Your task to perform on an android device: Clear the cart on newegg.com. Add "usb-c to usb-a" to the cart on newegg.com, then select checkout. Image 0: 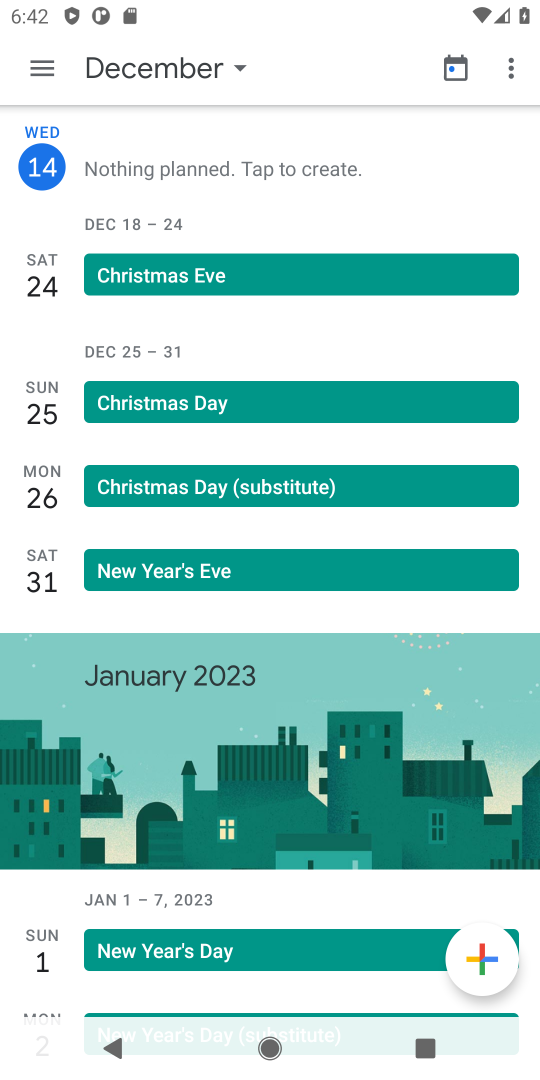
Step 0: press home button
Your task to perform on an android device: Clear the cart on newegg.com. Add "usb-c to usb-a" to the cart on newegg.com, then select checkout. Image 1: 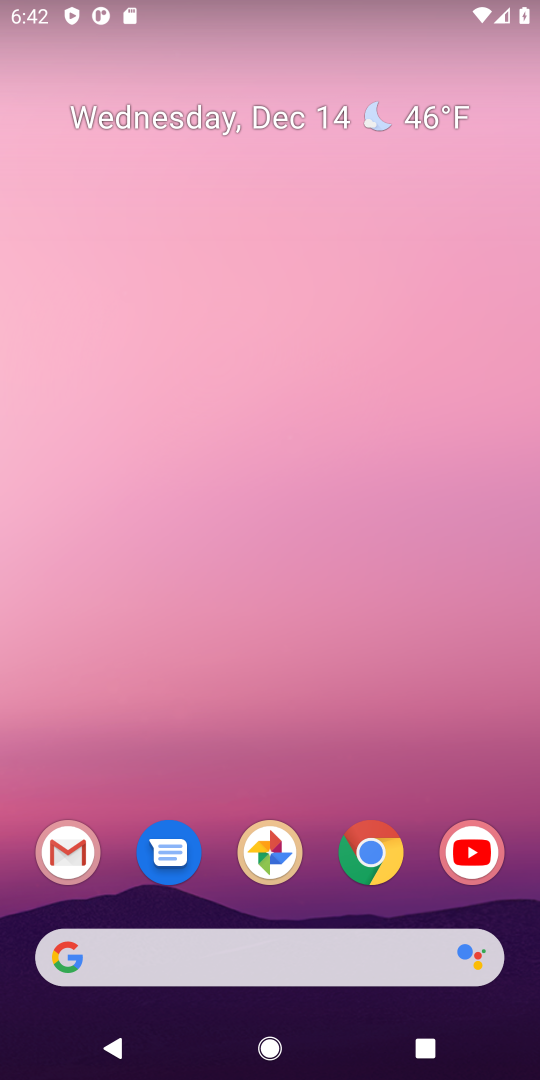
Step 1: click (371, 852)
Your task to perform on an android device: Clear the cart on newegg.com. Add "usb-c to usb-a" to the cart on newegg.com, then select checkout. Image 2: 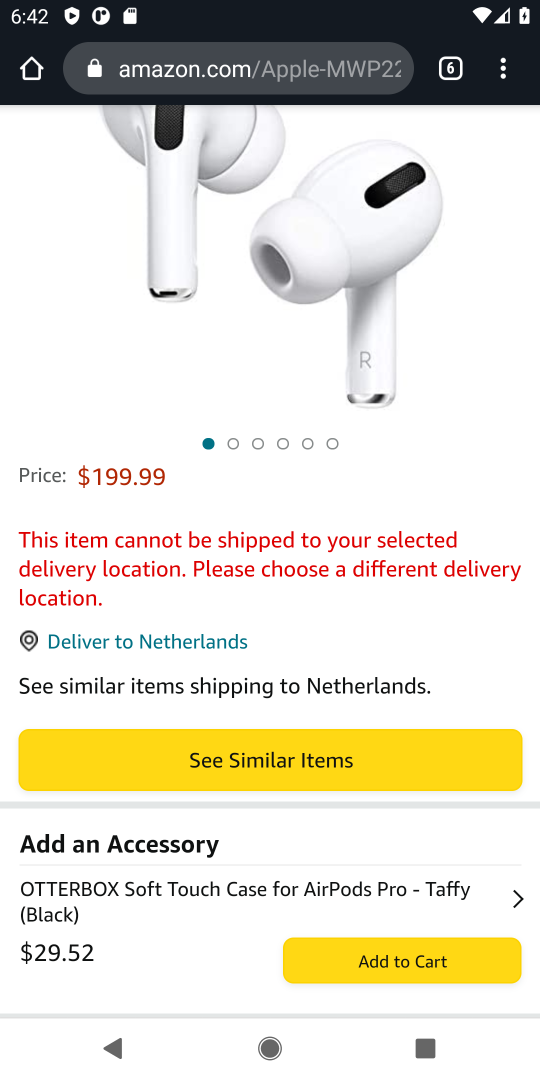
Step 2: click (449, 67)
Your task to perform on an android device: Clear the cart on newegg.com. Add "usb-c to usb-a" to the cart on newegg.com, then select checkout. Image 3: 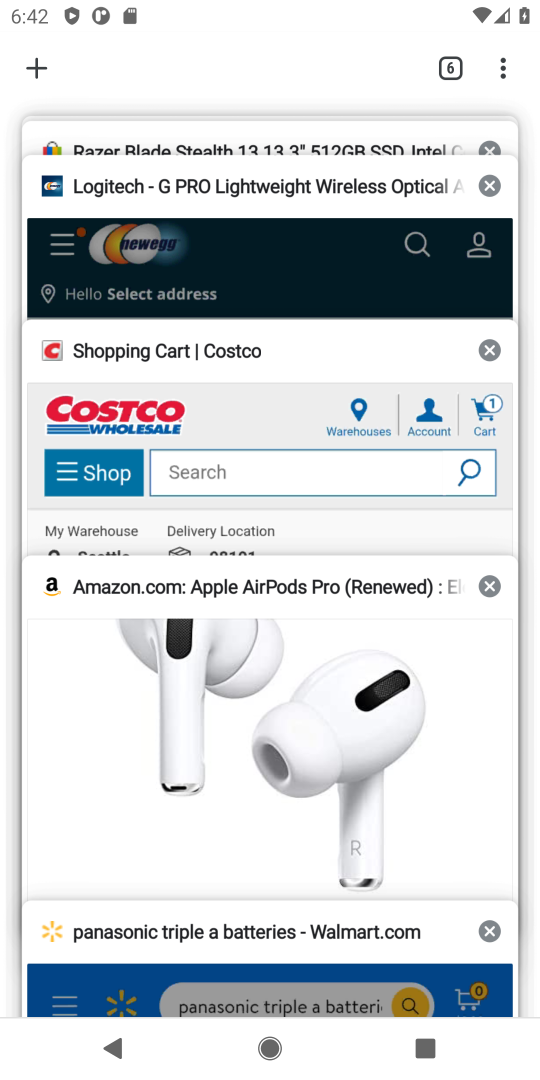
Step 3: click (275, 205)
Your task to perform on an android device: Clear the cart on newegg.com. Add "usb-c to usb-a" to the cart on newegg.com, then select checkout. Image 4: 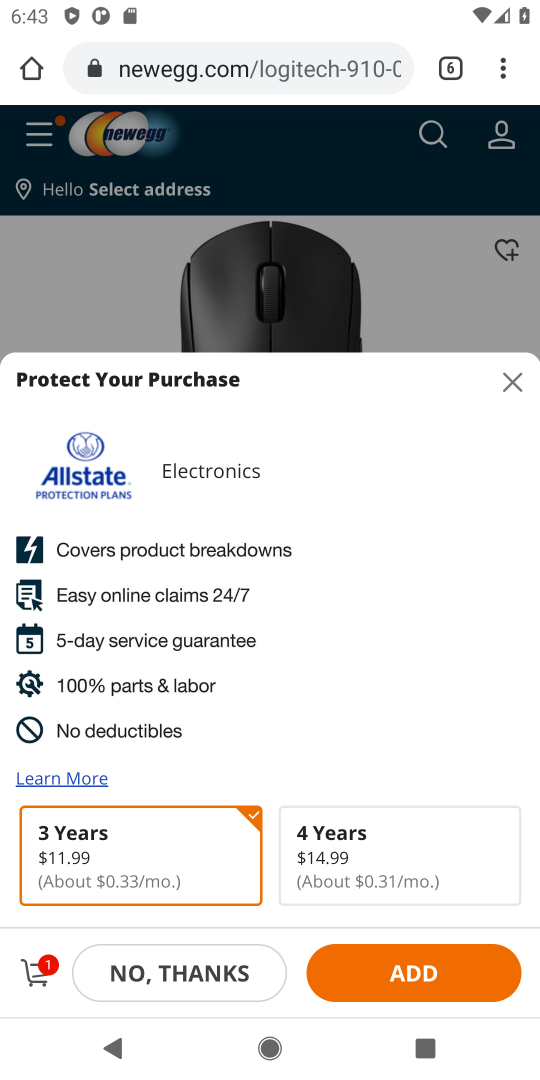
Step 4: click (515, 386)
Your task to perform on an android device: Clear the cart on newegg.com. Add "usb-c to usb-a" to the cart on newegg.com, then select checkout. Image 5: 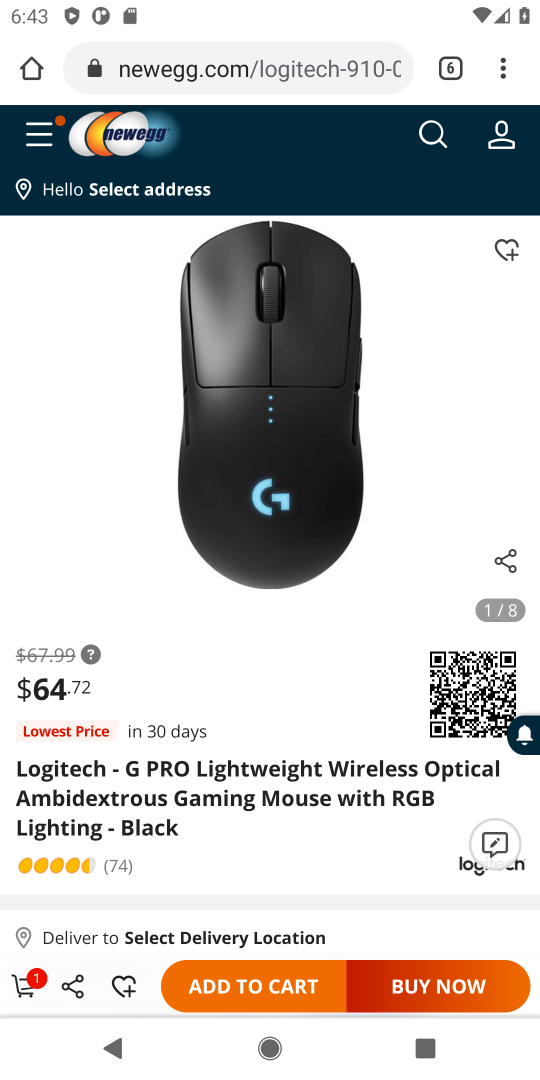
Step 5: click (432, 138)
Your task to perform on an android device: Clear the cart on newegg.com. Add "usb-c to usb-a" to the cart on newegg.com, then select checkout. Image 6: 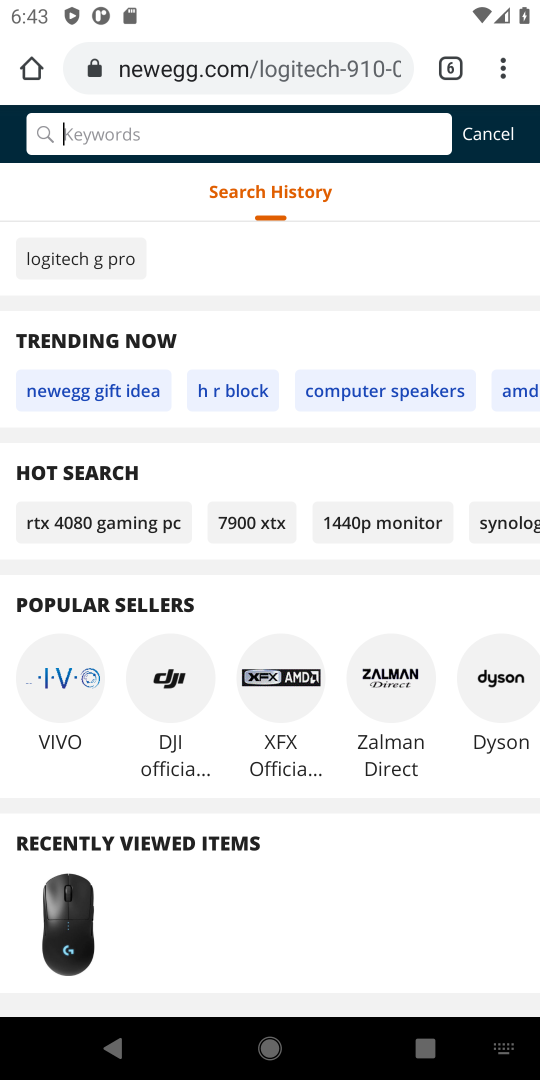
Step 6: type "usb-c to usb-a"
Your task to perform on an android device: Clear the cart on newegg.com. Add "usb-c to usb-a" to the cart on newegg.com, then select checkout. Image 7: 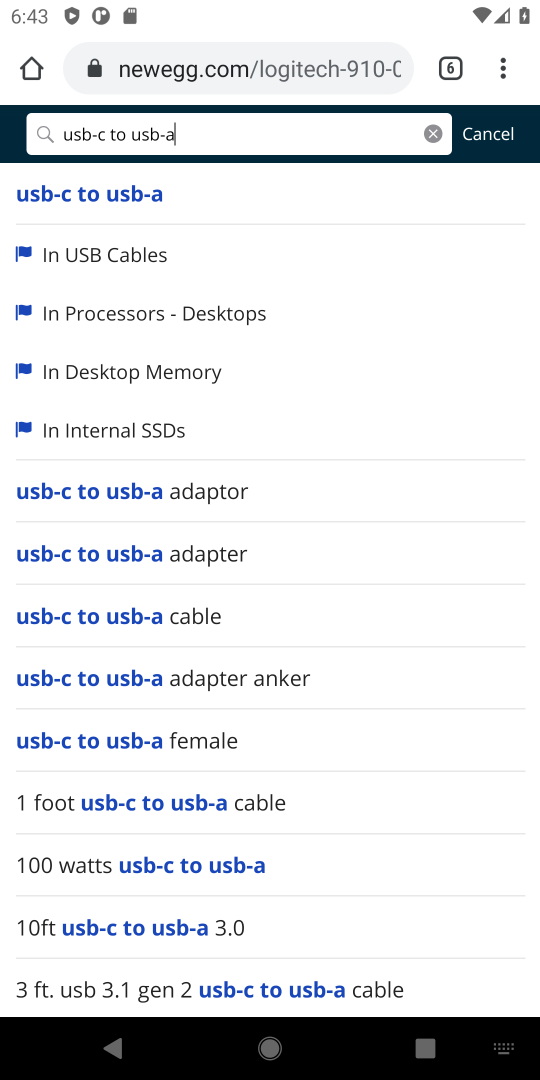
Step 7: click (69, 198)
Your task to perform on an android device: Clear the cart on newegg.com. Add "usb-c to usb-a" to the cart on newegg.com, then select checkout. Image 8: 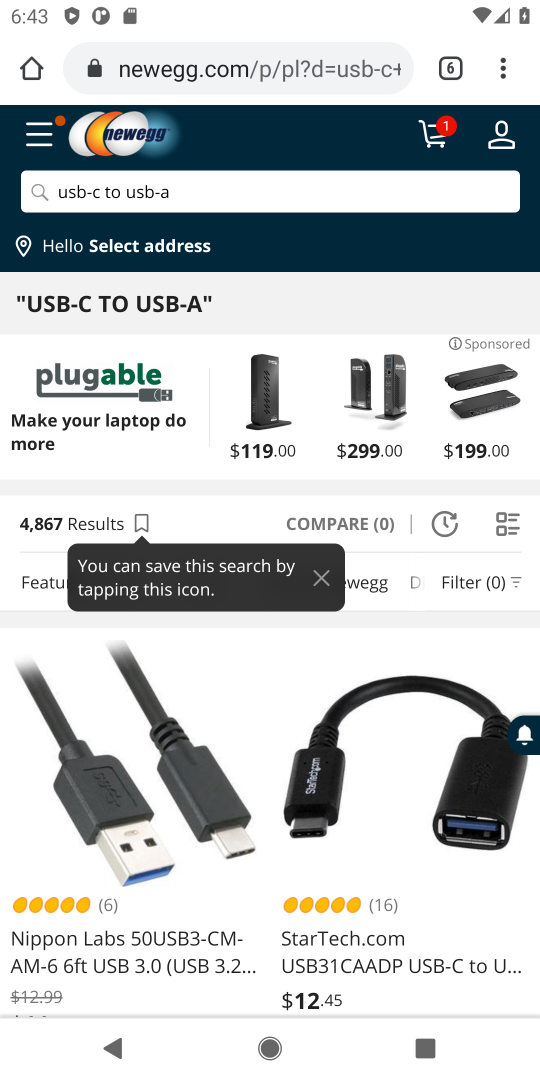
Step 8: click (183, 949)
Your task to perform on an android device: Clear the cart on newegg.com. Add "usb-c to usb-a" to the cart on newegg.com, then select checkout. Image 9: 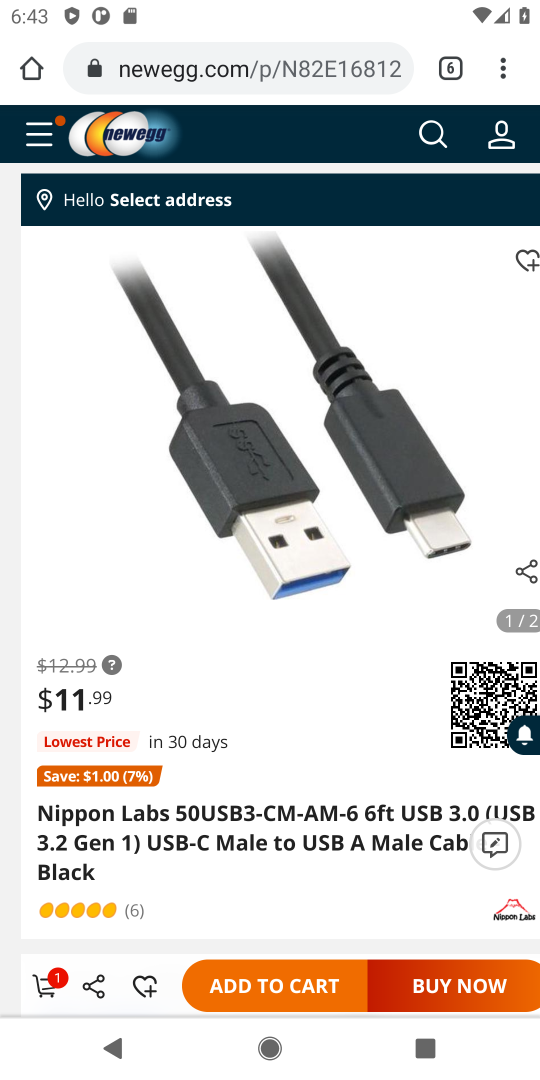
Step 9: click (41, 982)
Your task to perform on an android device: Clear the cart on newegg.com. Add "usb-c to usb-a" to the cart on newegg.com, then select checkout. Image 10: 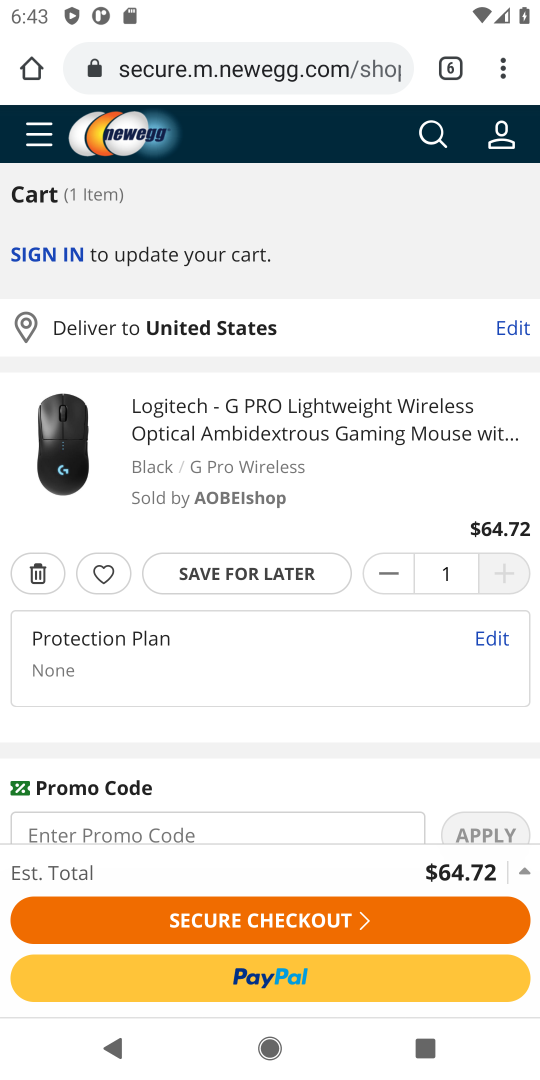
Step 10: click (36, 570)
Your task to perform on an android device: Clear the cart on newegg.com. Add "usb-c to usb-a" to the cart on newegg.com, then select checkout. Image 11: 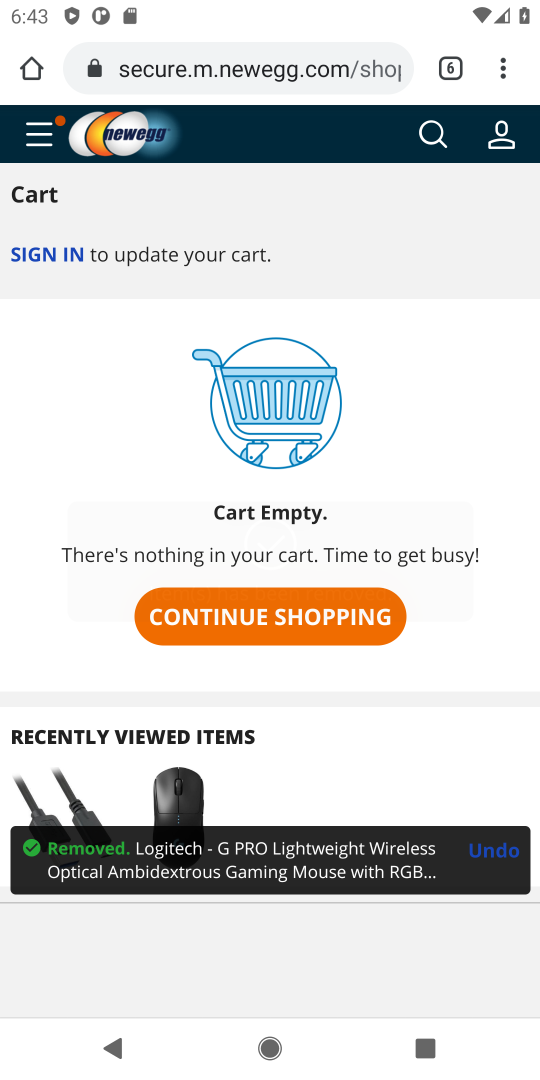
Step 11: press back button
Your task to perform on an android device: Clear the cart on newegg.com. Add "usb-c to usb-a" to the cart on newegg.com, then select checkout. Image 12: 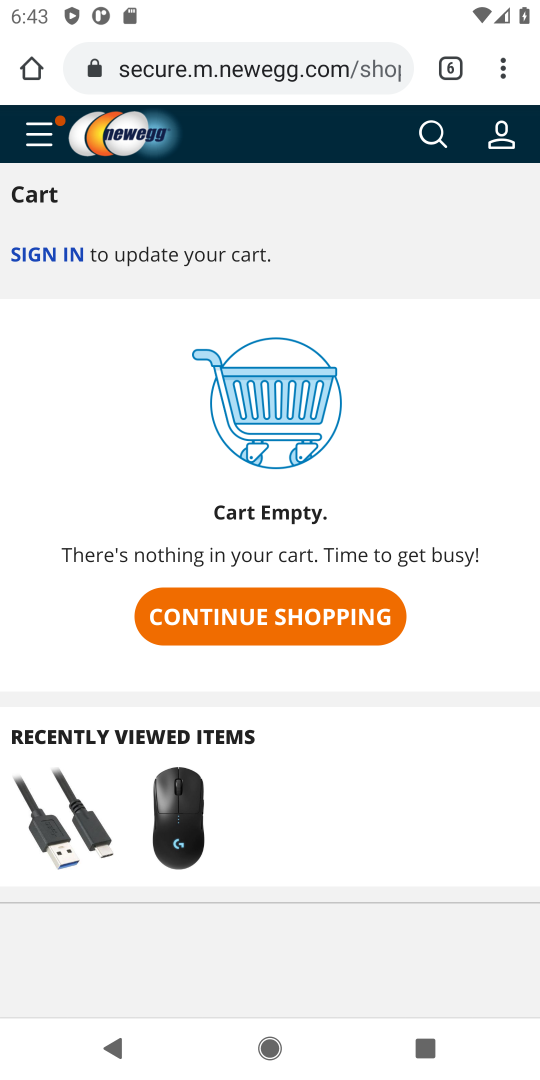
Step 12: press back button
Your task to perform on an android device: Clear the cart on newegg.com. Add "usb-c to usb-a" to the cart on newegg.com, then select checkout. Image 13: 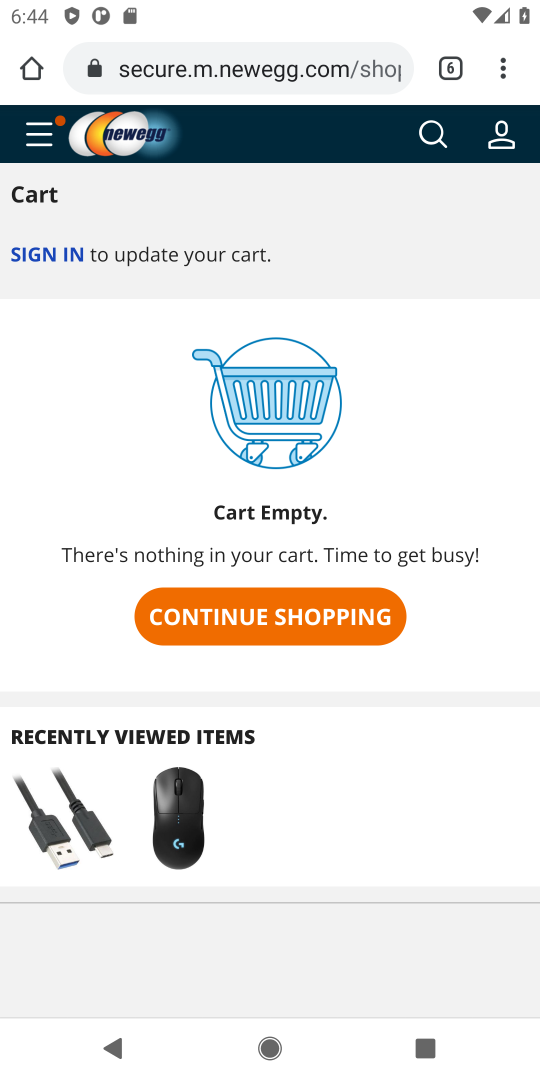
Step 13: press back button
Your task to perform on an android device: Clear the cart on newegg.com. Add "usb-c to usb-a" to the cart on newegg.com, then select checkout. Image 14: 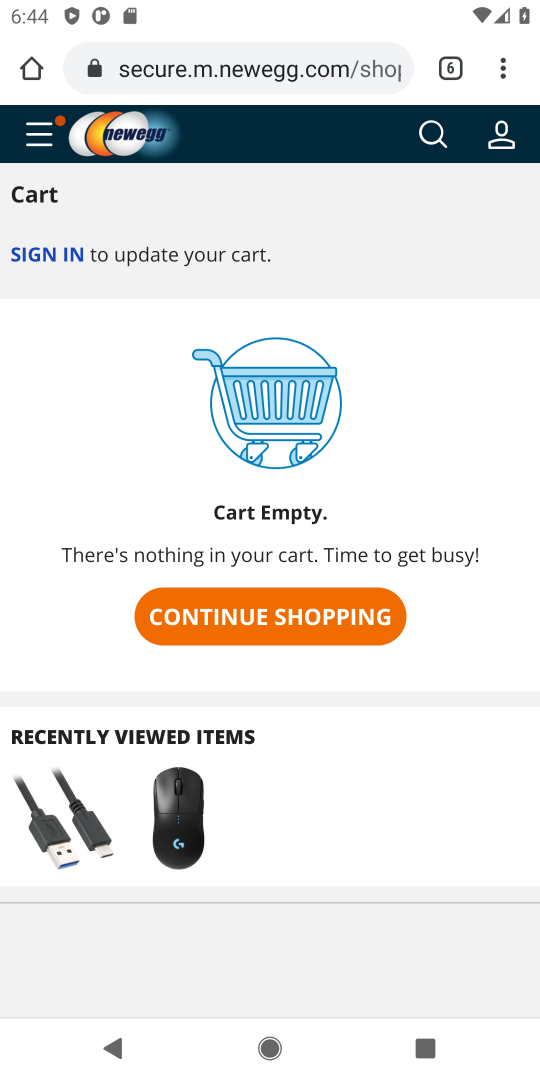
Step 14: click (74, 819)
Your task to perform on an android device: Clear the cart on newegg.com. Add "usb-c to usb-a" to the cart on newegg.com, then select checkout. Image 15: 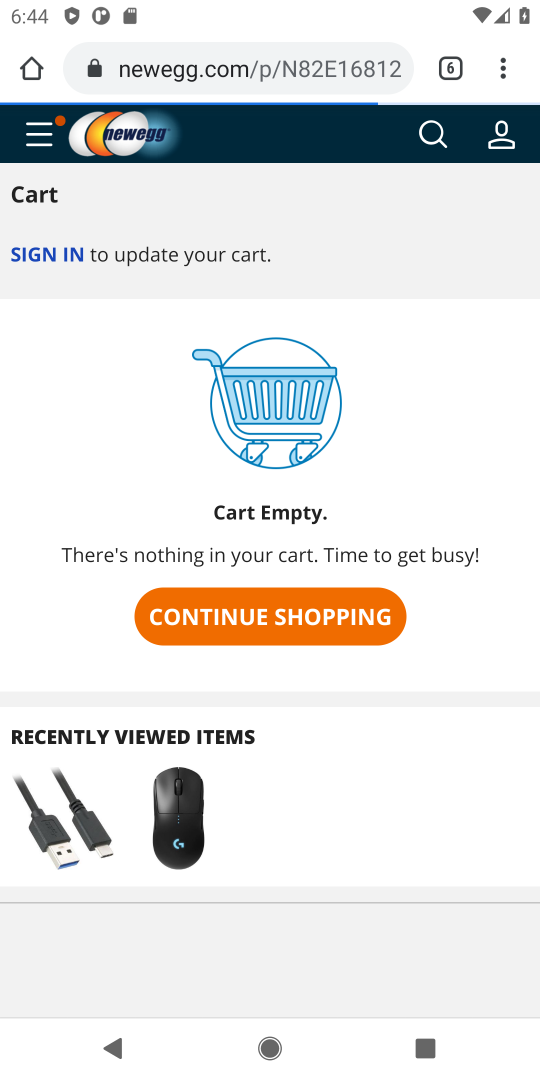
Step 15: click (74, 819)
Your task to perform on an android device: Clear the cart on newegg.com. Add "usb-c to usb-a" to the cart on newegg.com, then select checkout. Image 16: 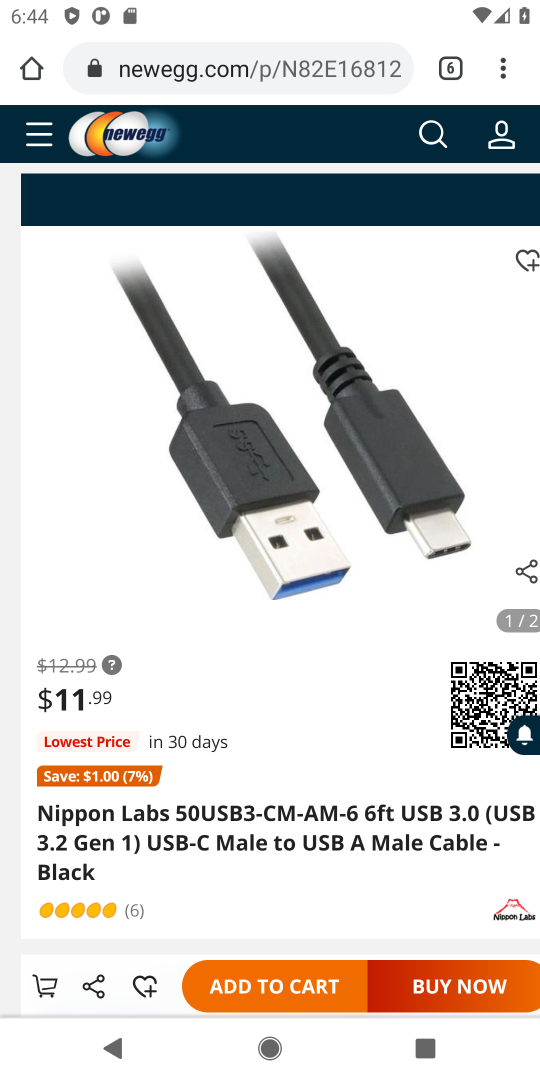
Step 16: click (256, 987)
Your task to perform on an android device: Clear the cart on newegg.com. Add "usb-c to usb-a" to the cart on newegg.com, then select checkout. Image 17: 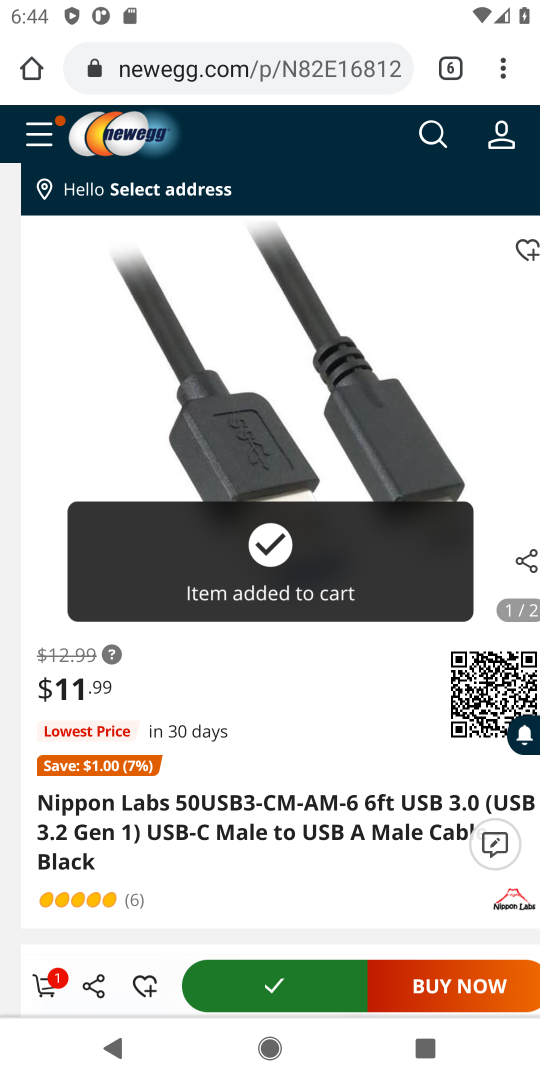
Step 17: task complete